Your task to perform on an android device: add a label to a message in the gmail app Image 0: 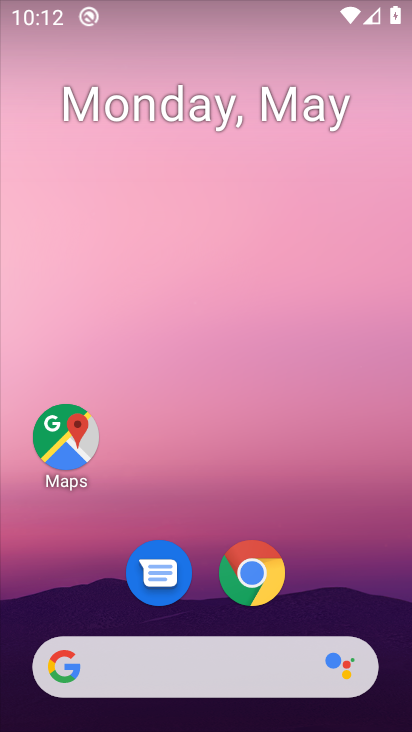
Step 0: drag from (189, 620) to (267, 85)
Your task to perform on an android device: add a label to a message in the gmail app Image 1: 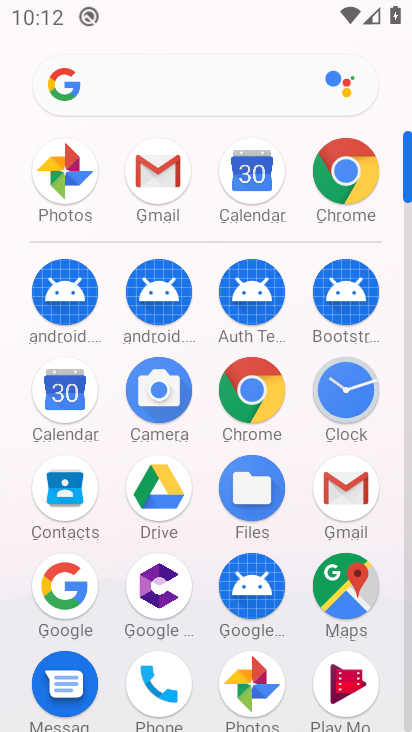
Step 1: click (160, 185)
Your task to perform on an android device: add a label to a message in the gmail app Image 2: 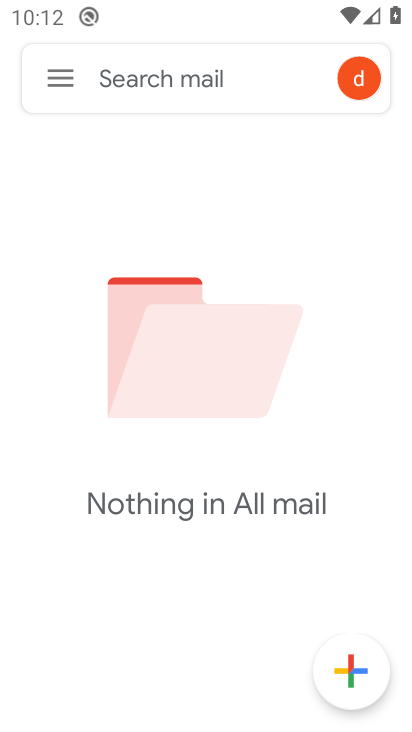
Step 2: task complete